Your task to perform on an android device: Go to sound settings Image 0: 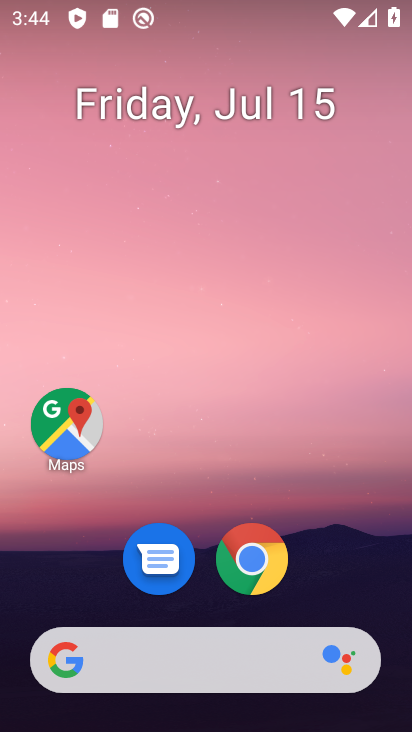
Step 0: drag from (102, 541) to (171, 79)
Your task to perform on an android device: Go to sound settings Image 1: 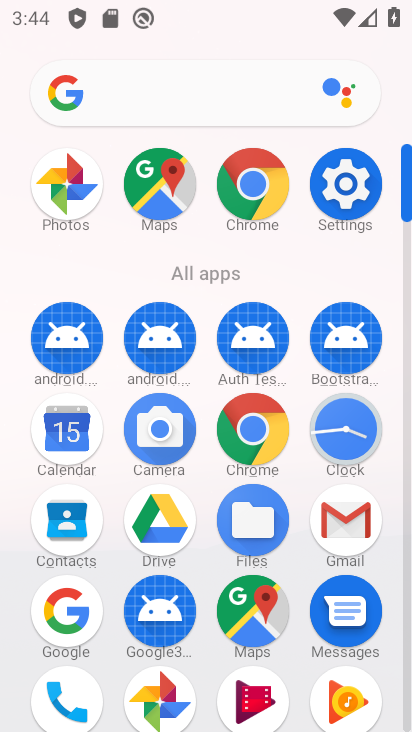
Step 1: click (362, 190)
Your task to perform on an android device: Go to sound settings Image 2: 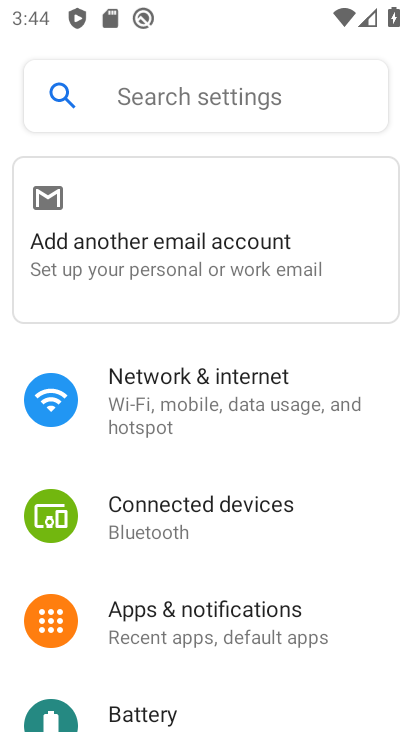
Step 2: drag from (193, 621) to (263, 97)
Your task to perform on an android device: Go to sound settings Image 3: 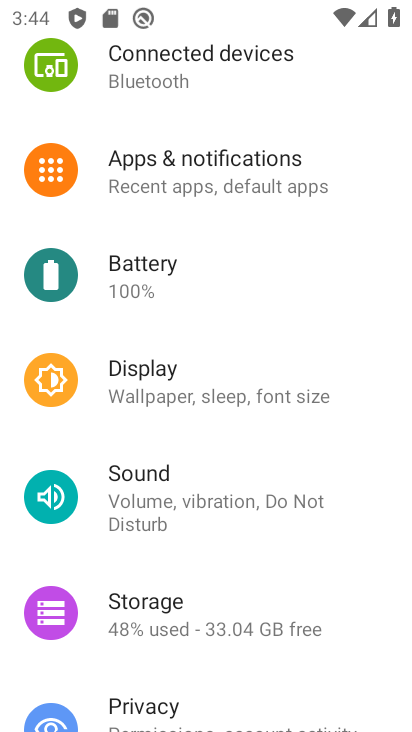
Step 3: click (170, 508)
Your task to perform on an android device: Go to sound settings Image 4: 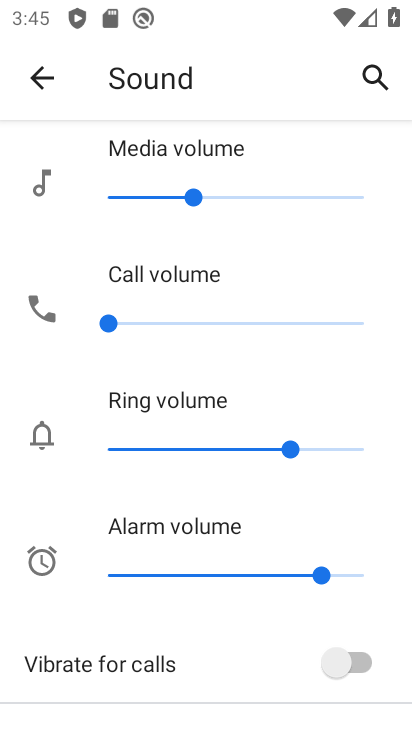
Step 4: task complete